Your task to perform on an android device: Go to accessibility settings Image 0: 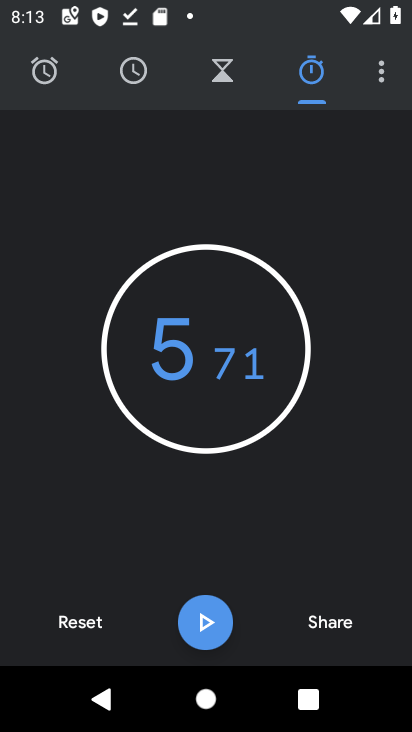
Step 0: press home button
Your task to perform on an android device: Go to accessibility settings Image 1: 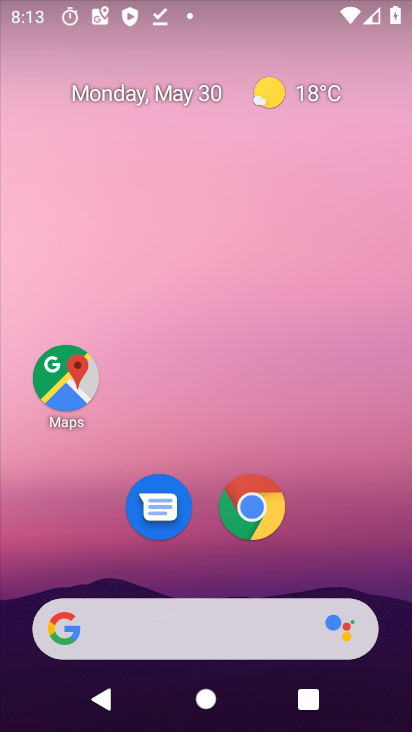
Step 1: drag from (351, 499) to (228, 3)
Your task to perform on an android device: Go to accessibility settings Image 2: 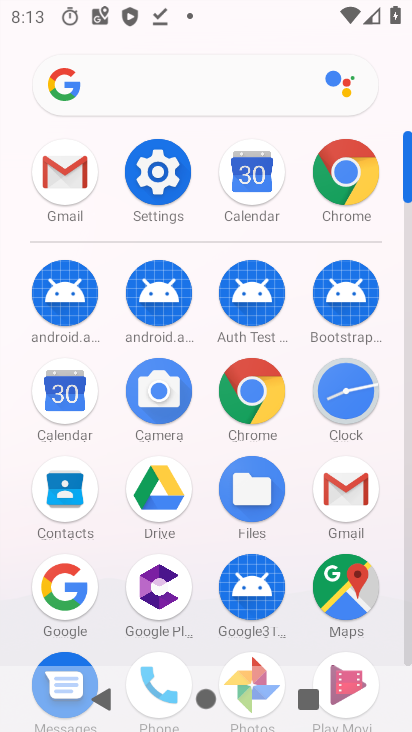
Step 2: click (158, 190)
Your task to perform on an android device: Go to accessibility settings Image 3: 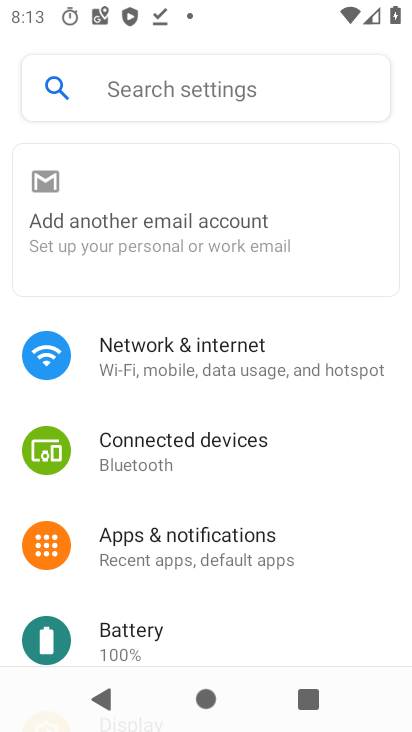
Step 3: drag from (202, 567) to (227, 253)
Your task to perform on an android device: Go to accessibility settings Image 4: 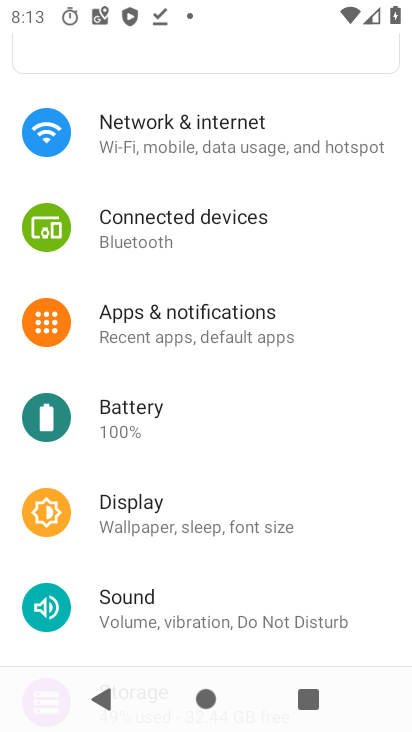
Step 4: drag from (206, 567) to (250, 243)
Your task to perform on an android device: Go to accessibility settings Image 5: 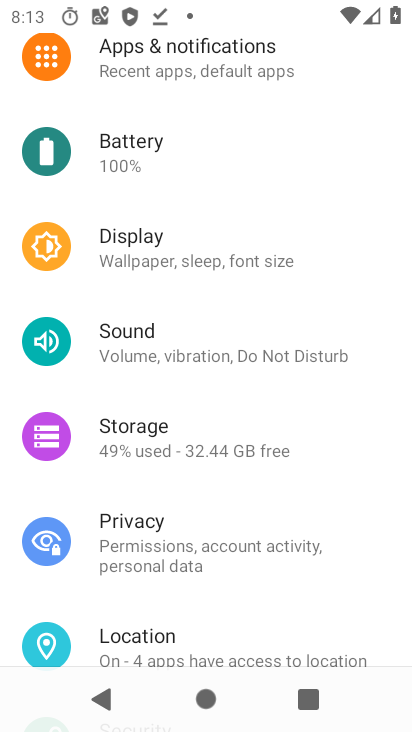
Step 5: drag from (218, 591) to (262, 232)
Your task to perform on an android device: Go to accessibility settings Image 6: 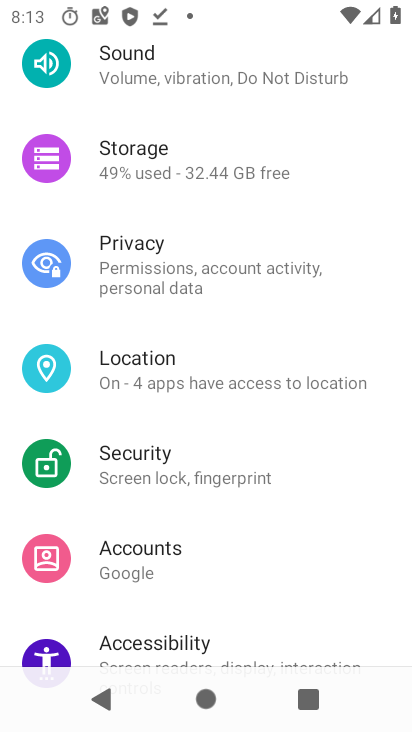
Step 6: click (176, 632)
Your task to perform on an android device: Go to accessibility settings Image 7: 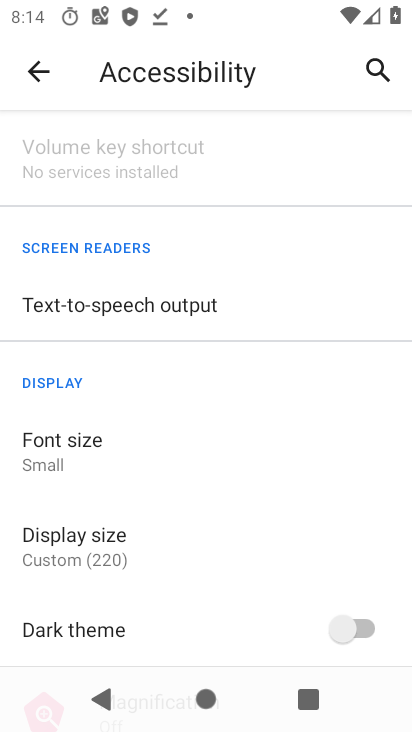
Step 7: task complete